Your task to perform on an android device: Show me popular games on the Play Store Image 0: 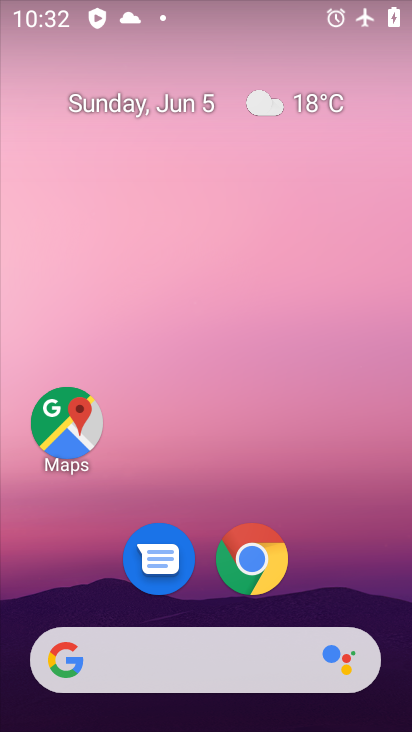
Step 0: drag from (402, 702) to (317, 187)
Your task to perform on an android device: Show me popular games on the Play Store Image 1: 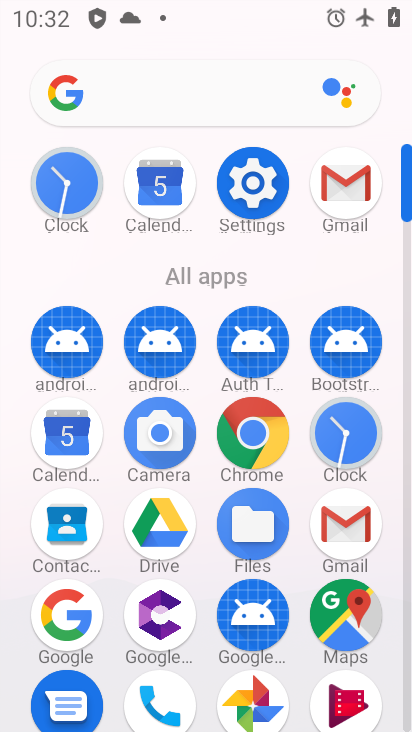
Step 1: drag from (198, 599) to (208, 267)
Your task to perform on an android device: Show me popular games on the Play Store Image 2: 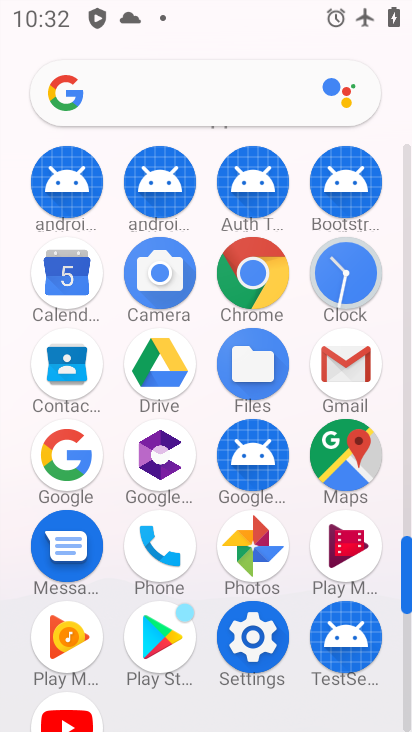
Step 2: click (157, 649)
Your task to perform on an android device: Show me popular games on the Play Store Image 3: 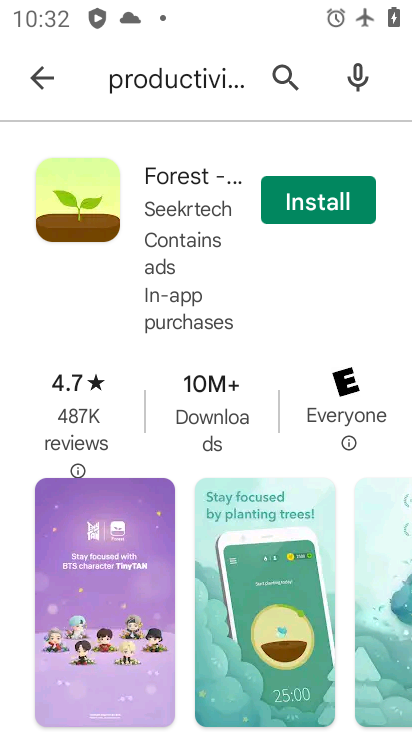
Step 3: click (283, 71)
Your task to perform on an android device: Show me popular games on the Play Store Image 4: 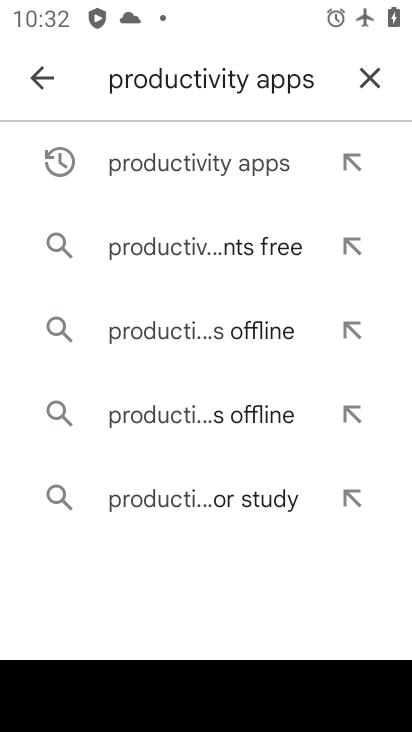
Step 4: click (364, 78)
Your task to perform on an android device: Show me popular games on the Play Store Image 5: 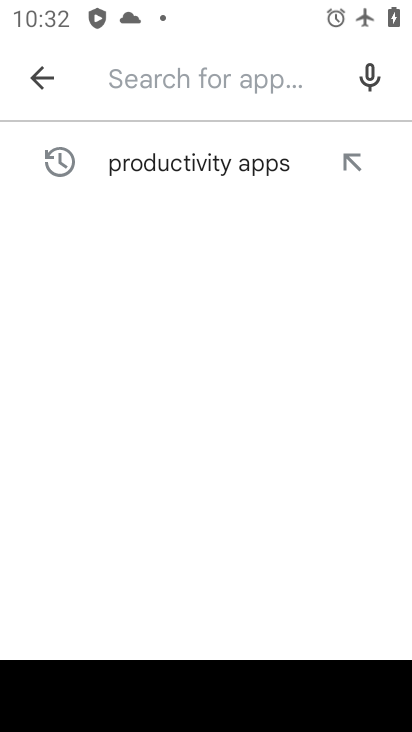
Step 5: type "popular games"
Your task to perform on an android device: Show me popular games on the Play Store Image 6: 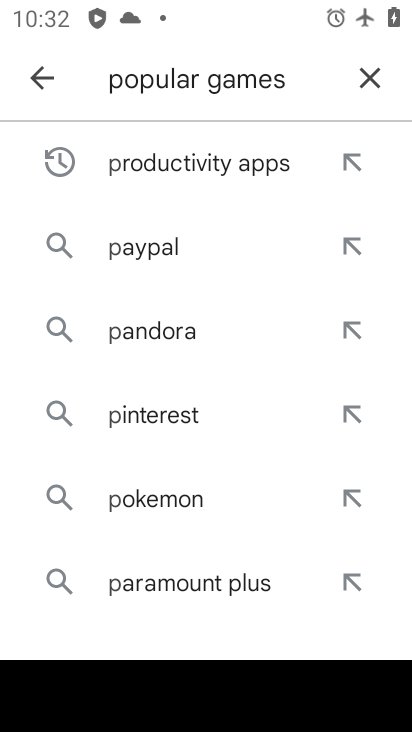
Step 6: click (321, 83)
Your task to perform on an android device: Show me popular games on the Play Store Image 7: 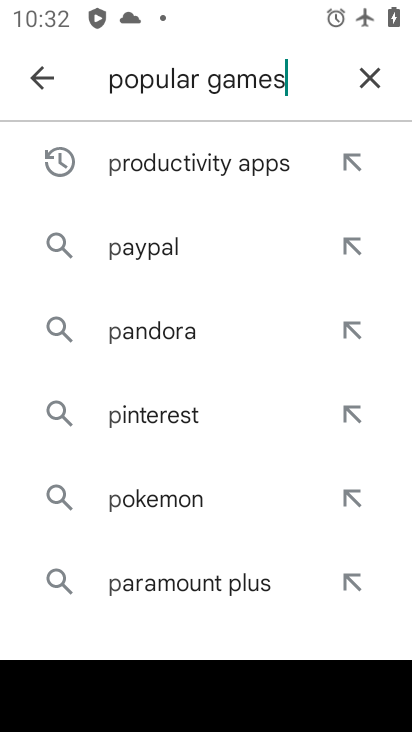
Step 7: click (319, 83)
Your task to perform on an android device: Show me popular games on the Play Store Image 8: 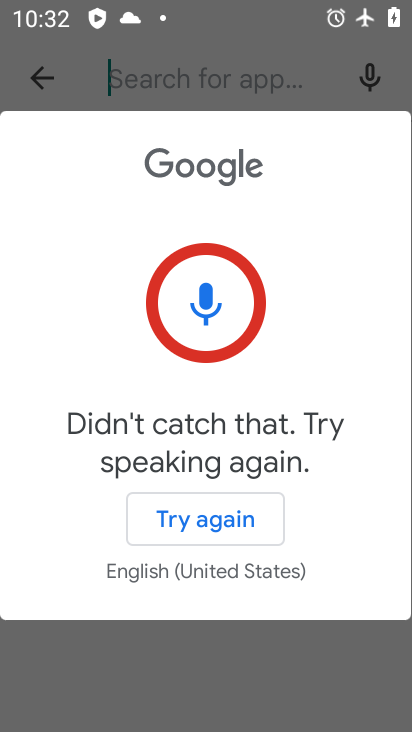
Step 8: press back button
Your task to perform on an android device: Show me popular games on the Play Store Image 9: 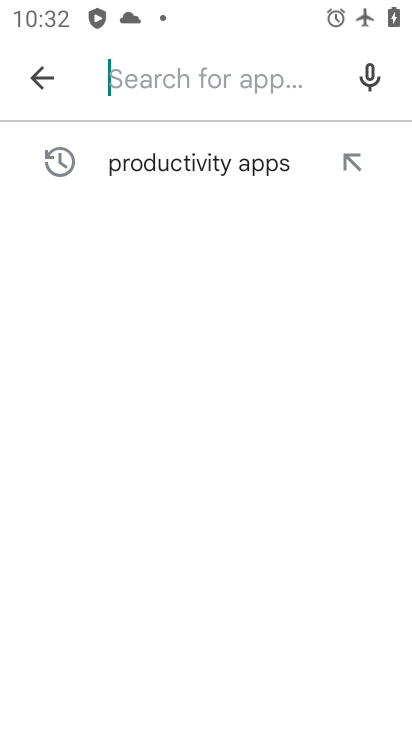
Step 9: type "popular games"
Your task to perform on an android device: Show me popular games on the Play Store Image 10: 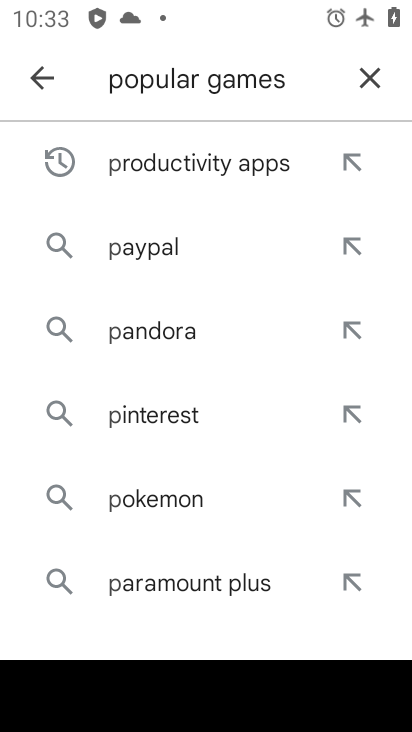
Step 10: task complete